Your task to perform on an android device: Turn off the flashlight Image 0: 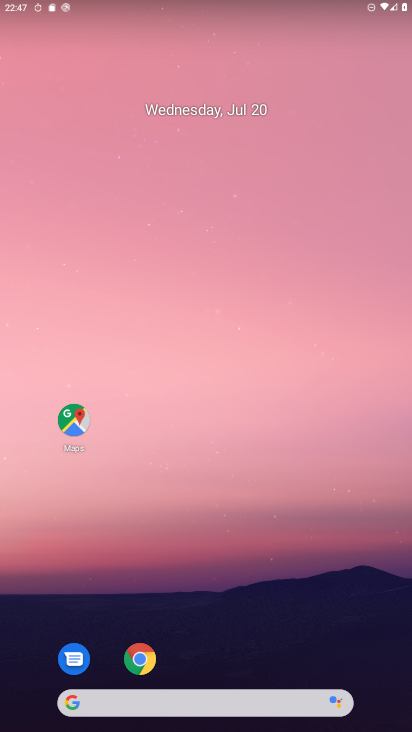
Step 0: drag from (326, 587) to (246, 0)
Your task to perform on an android device: Turn off the flashlight Image 1: 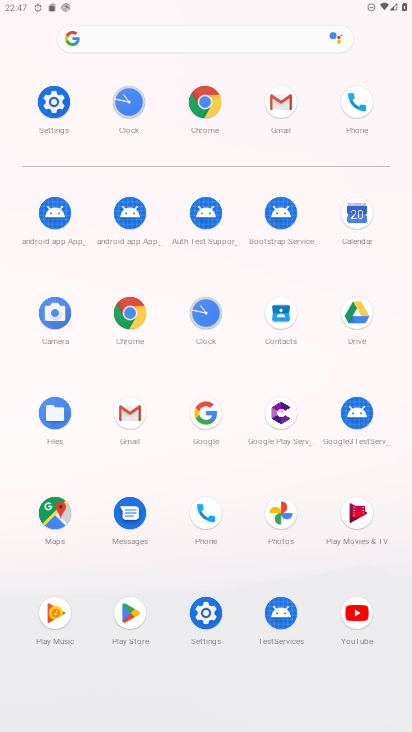
Step 1: click (54, 96)
Your task to perform on an android device: Turn off the flashlight Image 2: 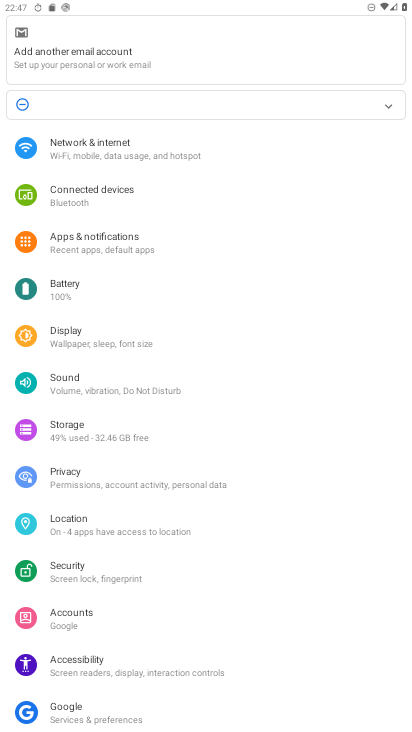
Step 2: click (85, 338)
Your task to perform on an android device: Turn off the flashlight Image 3: 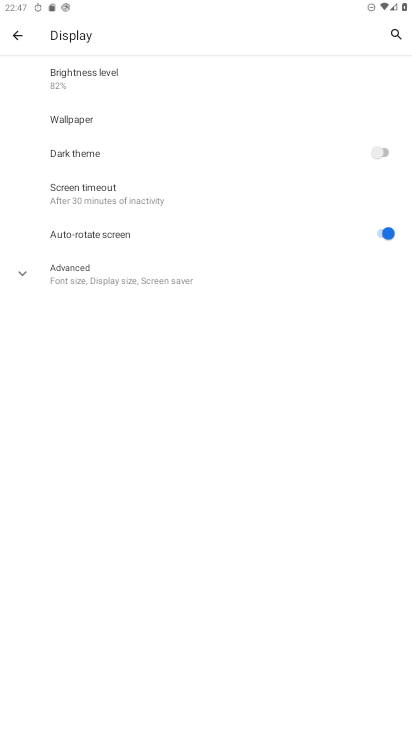
Step 3: click (123, 198)
Your task to perform on an android device: Turn off the flashlight Image 4: 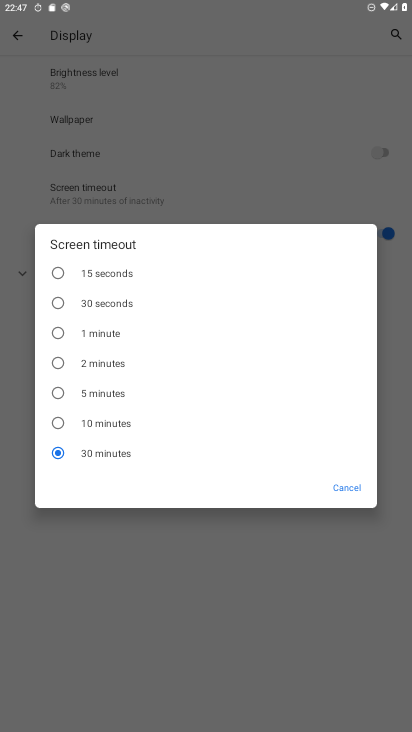
Step 4: task complete